Your task to perform on an android device: Turn on the flashlight Image 0: 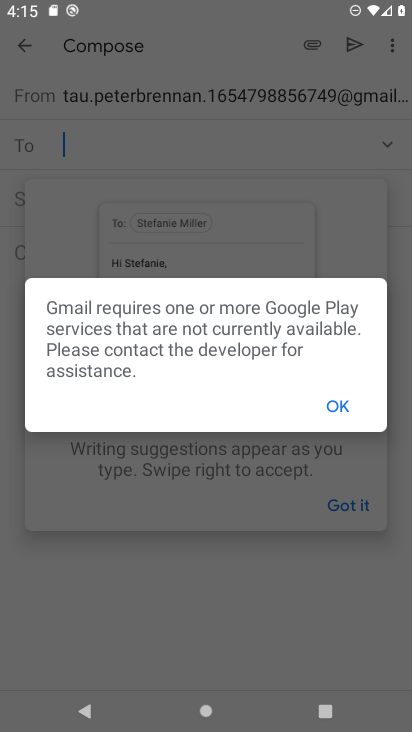
Step 0: press home button
Your task to perform on an android device: Turn on the flashlight Image 1: 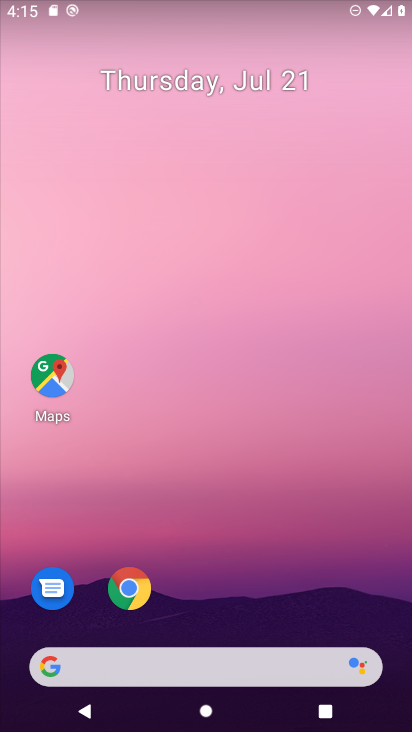
Step 1: task complete